Your task to perform on an android device: Open the phone app and click the voicemail tab. Image 0: 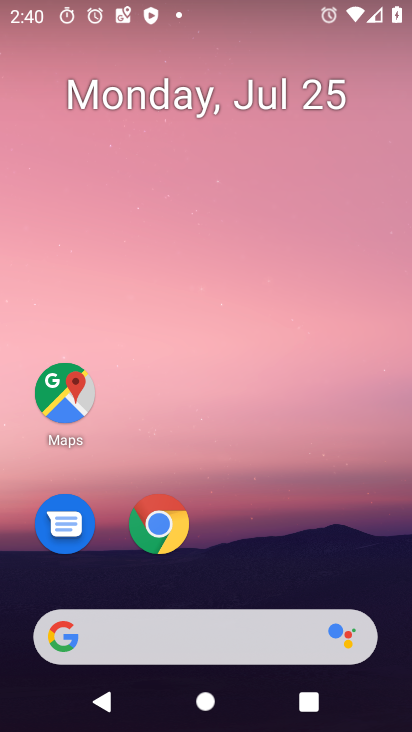
Step 0: press home button
Your task to perform on an android device: Open the phone app and click the voicemail tab. Image 1: 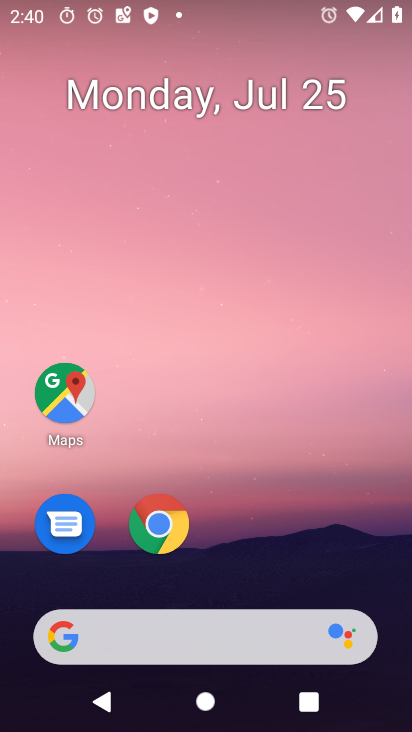
Step 1: drag from (255, 580) to (381, 96)
Your task to perform on an android device: Open the phone app and click the voicemail tab. Image 2: 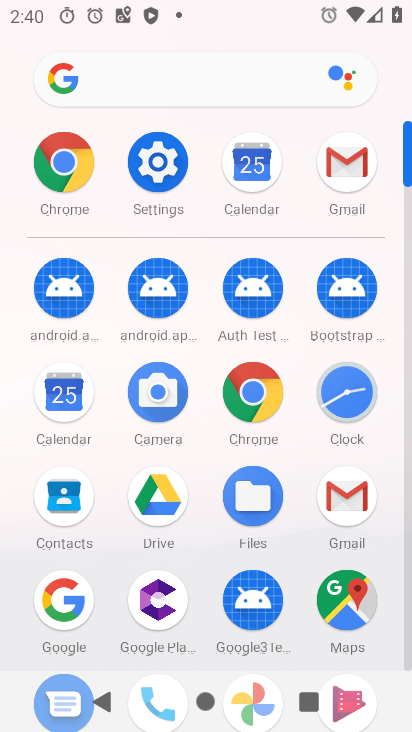
Step 2: drag from (289, 579) to (268, 104)
Your task to perform on an android device: Open the phone app and click the voicemail tab. Image 3: 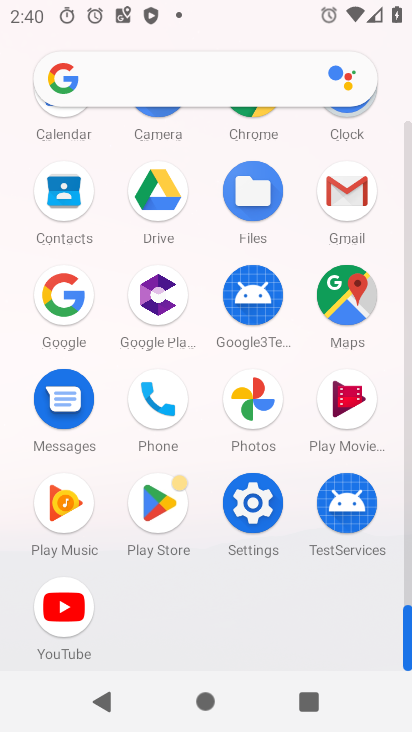
Step 3: click (162, 402)
Your task to perform on an android device: Open the phone app and click the voicemail tab. Image 4: 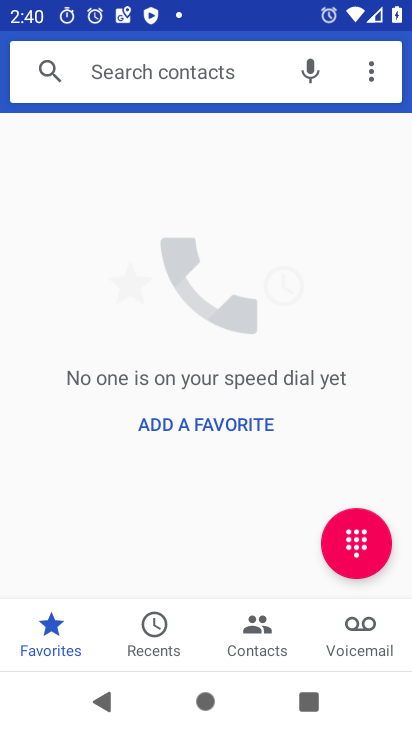
Step 4: click (365, 630)
Your task to perform on an android device: Open the phone app and click the voicemail tab. Image 5: 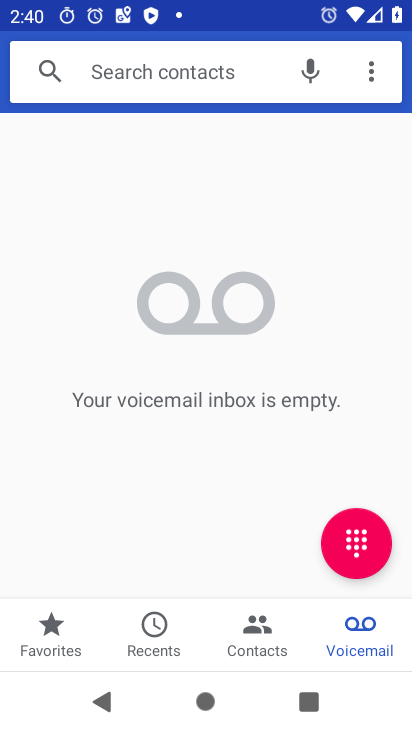
Step 5: task complete